Your task to perform on an android device: Go to Wikipedia Image 0: 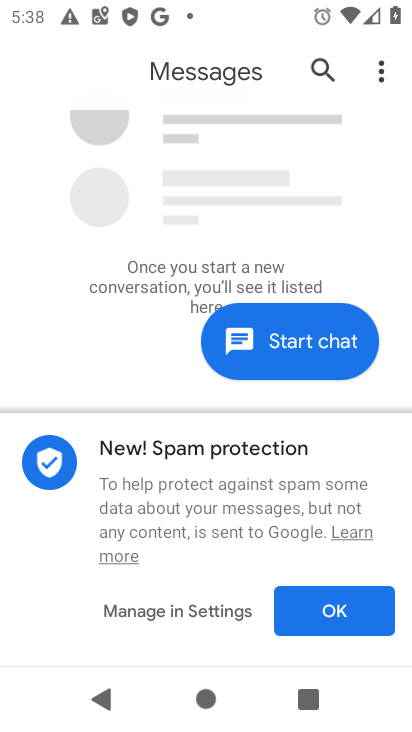
Step 0: press home button
Your task to perform on an android device: Go to Wikipedia Image 1: 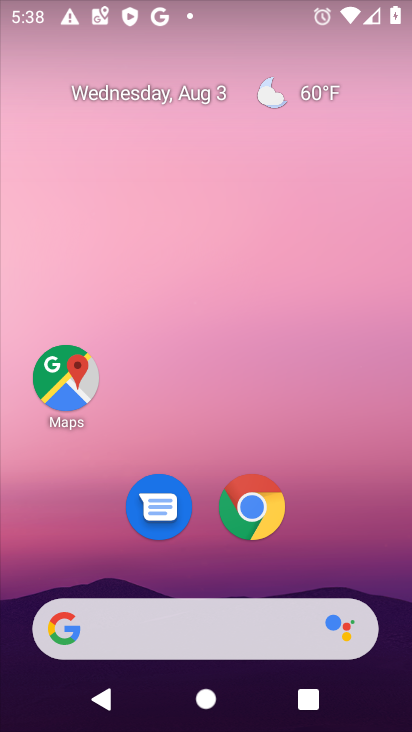
Step 1: drag from (303, 544) to (317, 98)
Your task to perform on an android device: Go to Wikipedia Image 2: 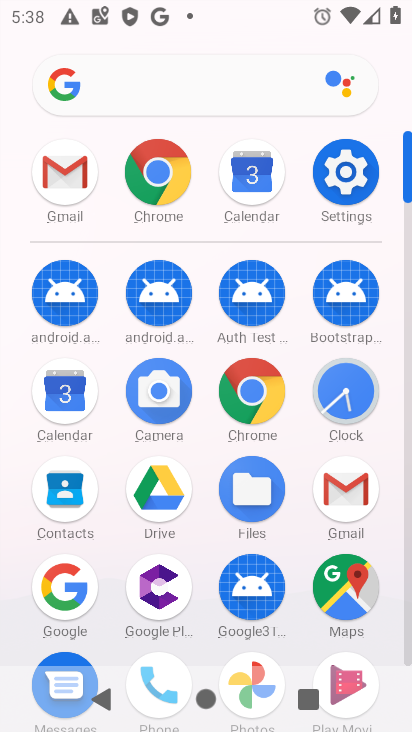
Step 2: click (156, 169)
Your task to perform on an android device: Go to Wikipedia Image 3: 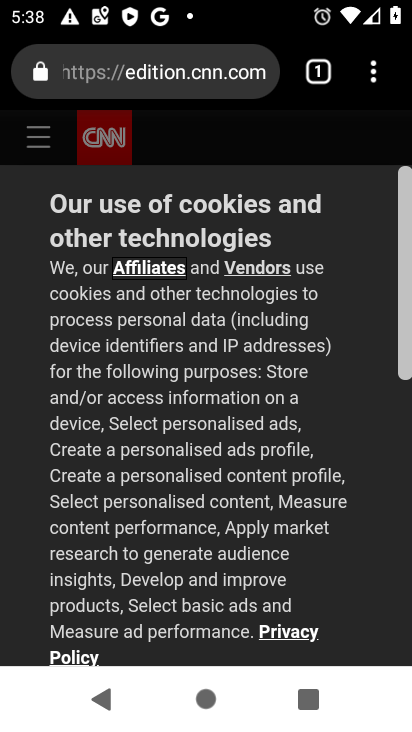
Step 3: click (205, 59)
Your task to perform on an android device: Go to Wikipedia Image 4: 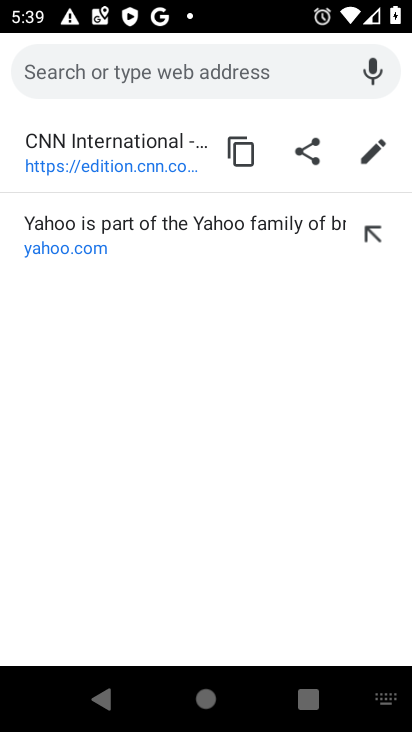
Step 4: type "wikipedia"
Your task to perform on an android device: Go to Wikipedia Image 5: 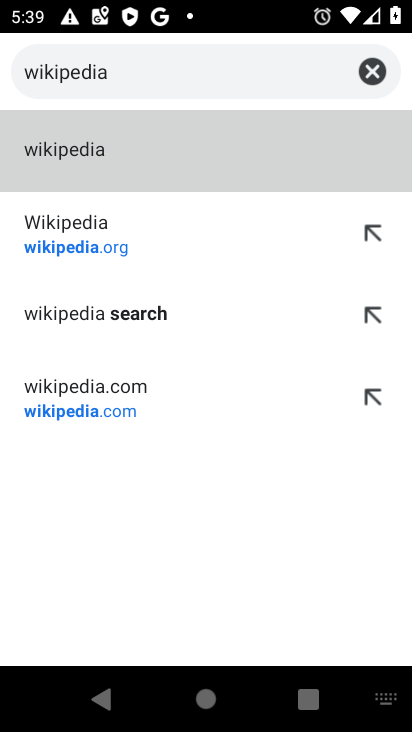
Step 5: click (71, 249)
Your task to perform on an android device: Go to Wikipedia Image 6: 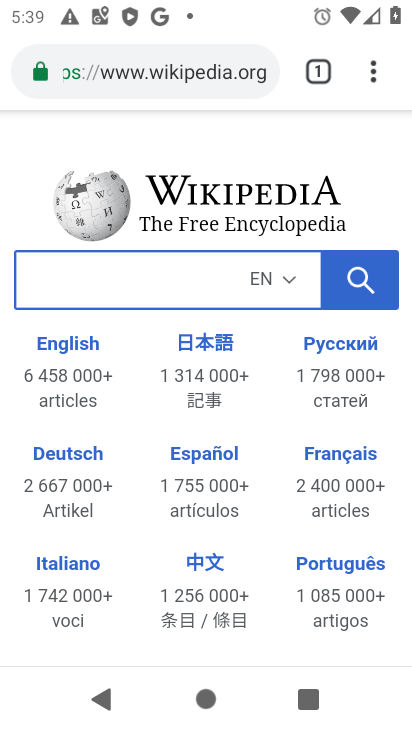
Step 6: task complete